Your task to perform on an android device: Open battery settings Image 0: 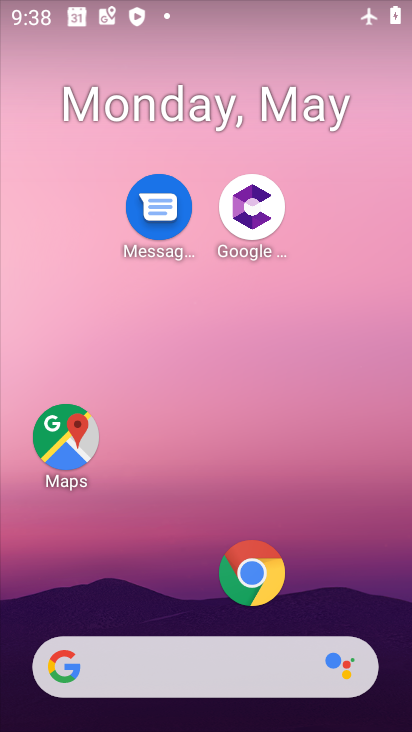
Step 0: drag from (240, 695) to (299, 128)
Your task to perform on an android device: Open battery settings Image 1: 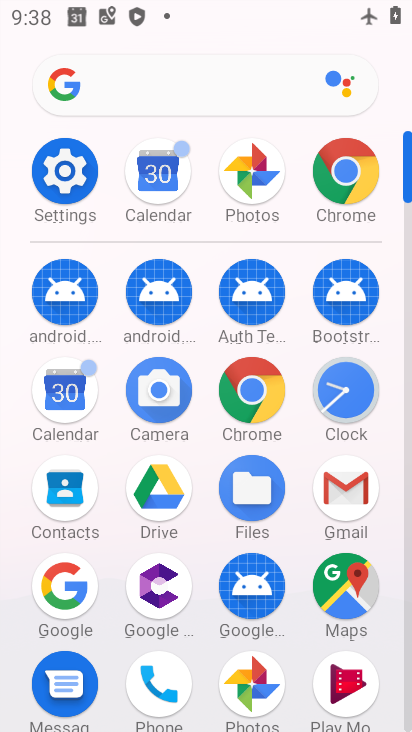
Step 1: click (65, 179)
Your task to perform on an android device: Open battery settings Image 2: 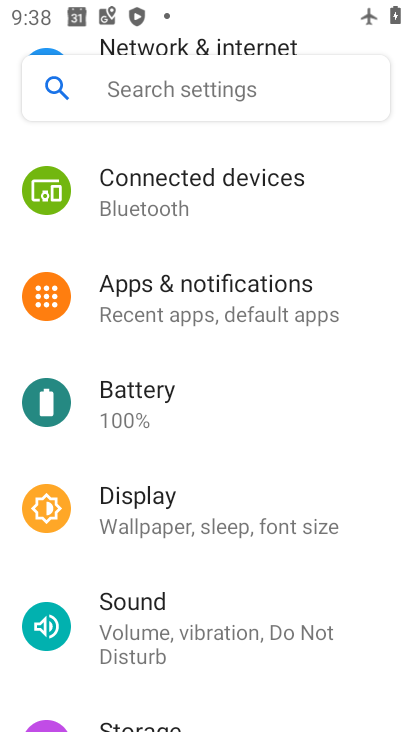
Step 2: click (186, 418)
Your task to perform on an android device: Open battery settings Image 3: 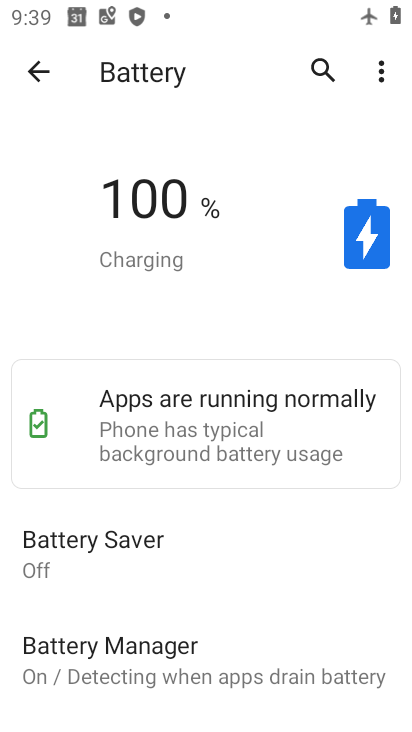
Step 3: task complete